Your task to perform on an android device: Open display settings Image 0: 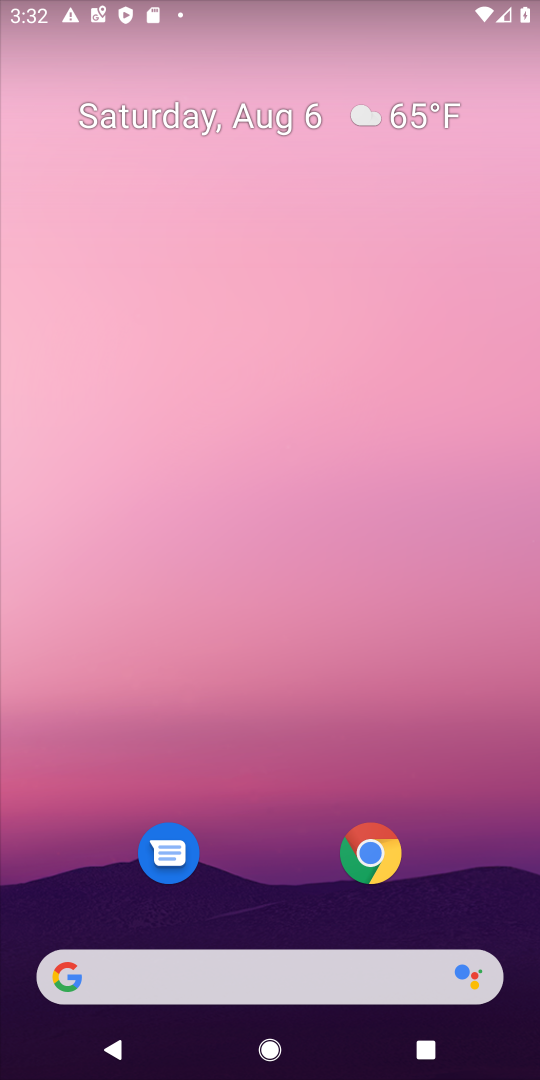
Step 0: drag from (269, 819) to (340, 92)
Your task to perform on an android device: Open display settings Image 1: 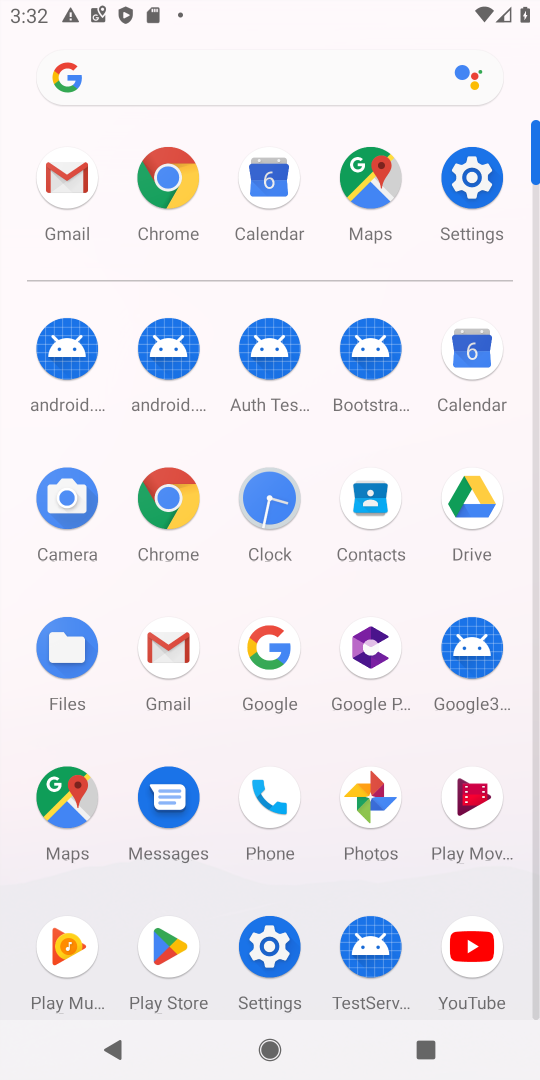
Step 1: click (479, 169)
Your task to perform on an android device: Open display settings Image 2: 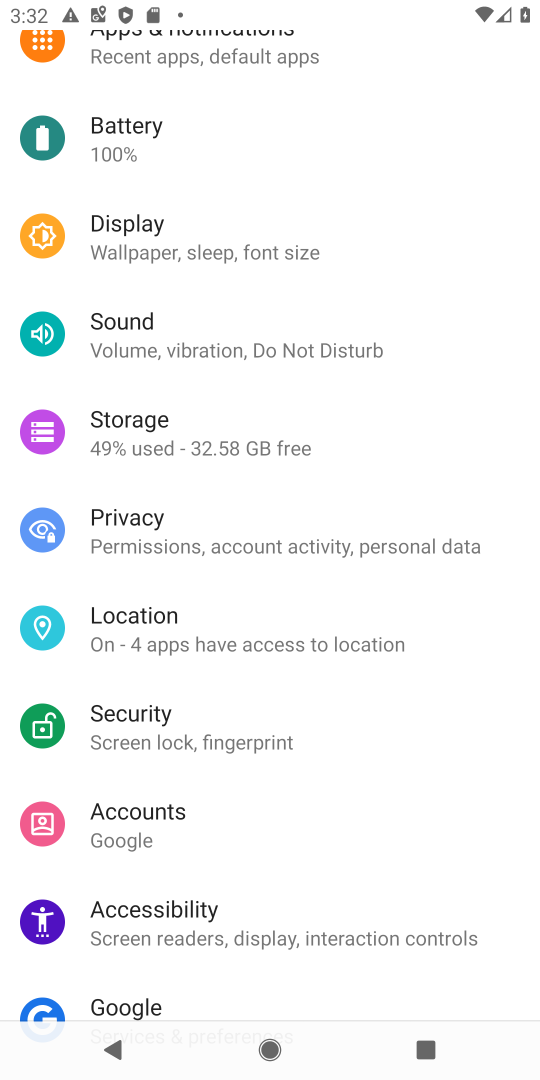
Step 2: click (178, 243)
Your task to perform on an android device: Open display settings Image 3: 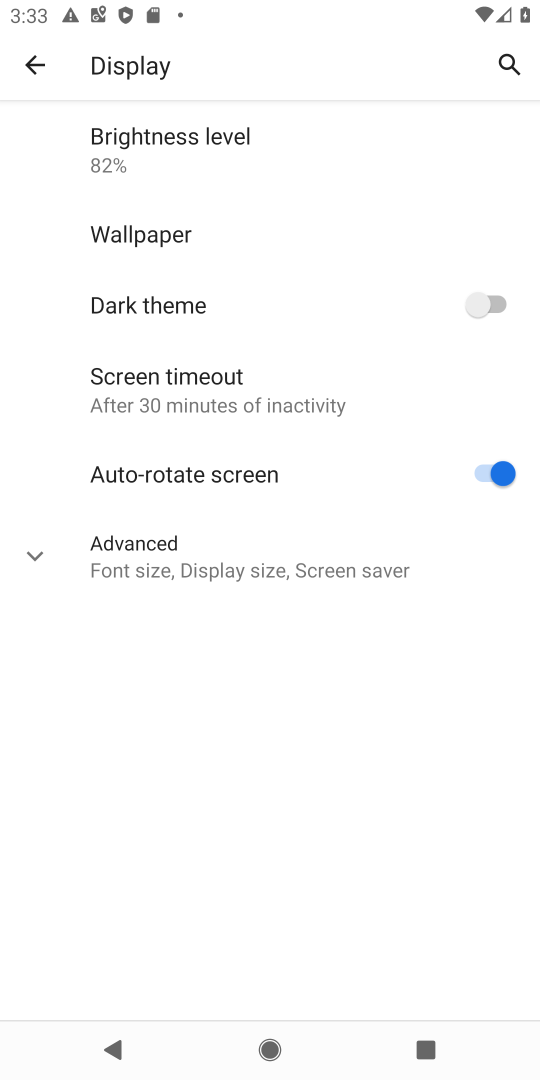
Step 3: task complete